Your task to perform on an android device: add a contact in the contacts app Image 0: 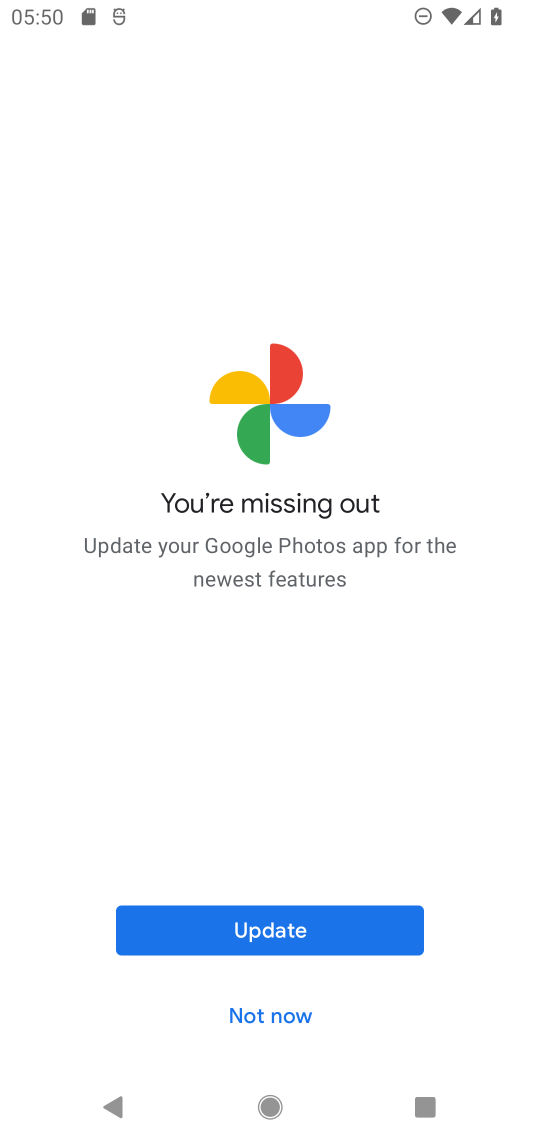
Step 0: press home button
Your task to perform on an android device: add a contact in the contacts app Image 1: 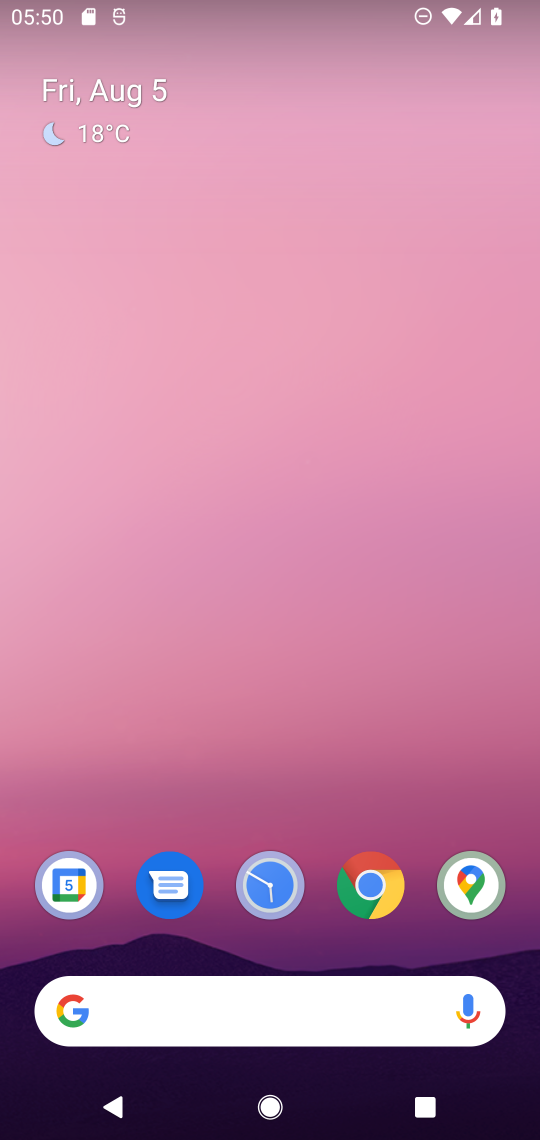
Step 1: drag from (324, 955) to (277, 93)
Your task to perform on an android device: add a contact in the contacts app Image 2: 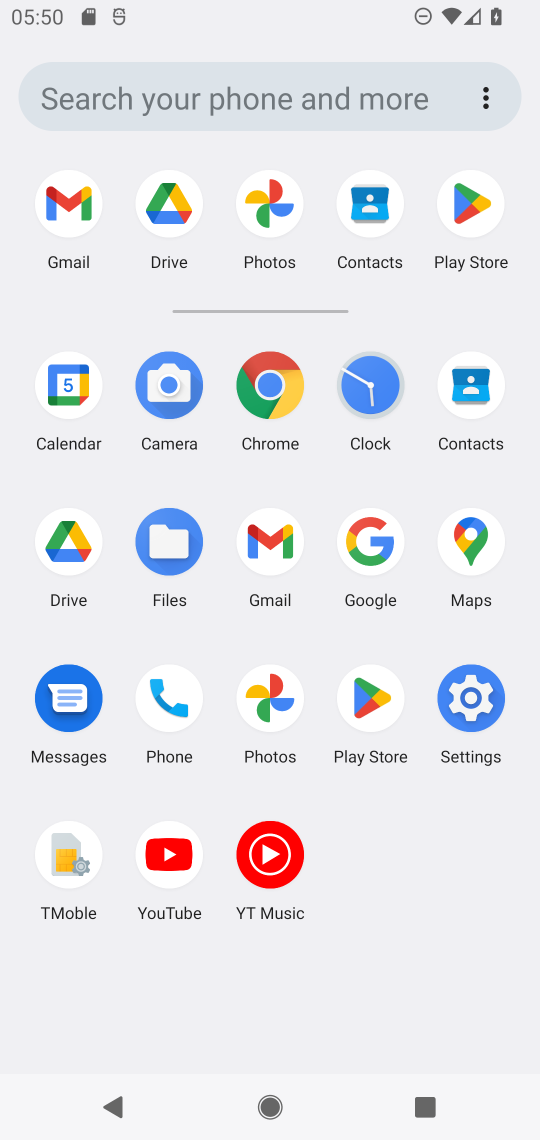
Step 2: click (467, 402)
Your task to perform on an android device: add a contact in the contacts app Image 3: 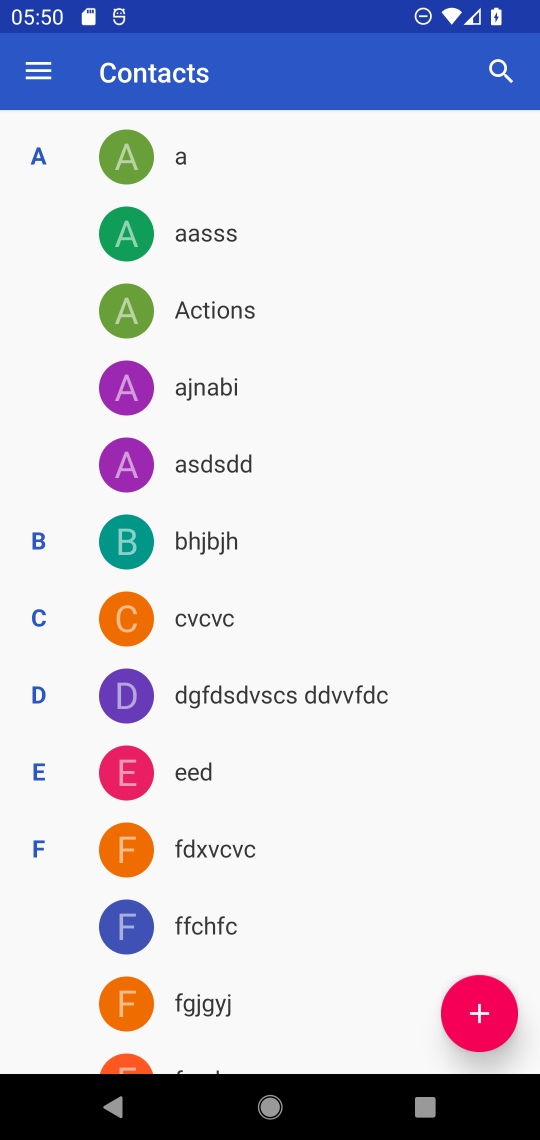
Step 3: press home button
Your task to perform on an android device: add a contact in the contacts app Image 4: 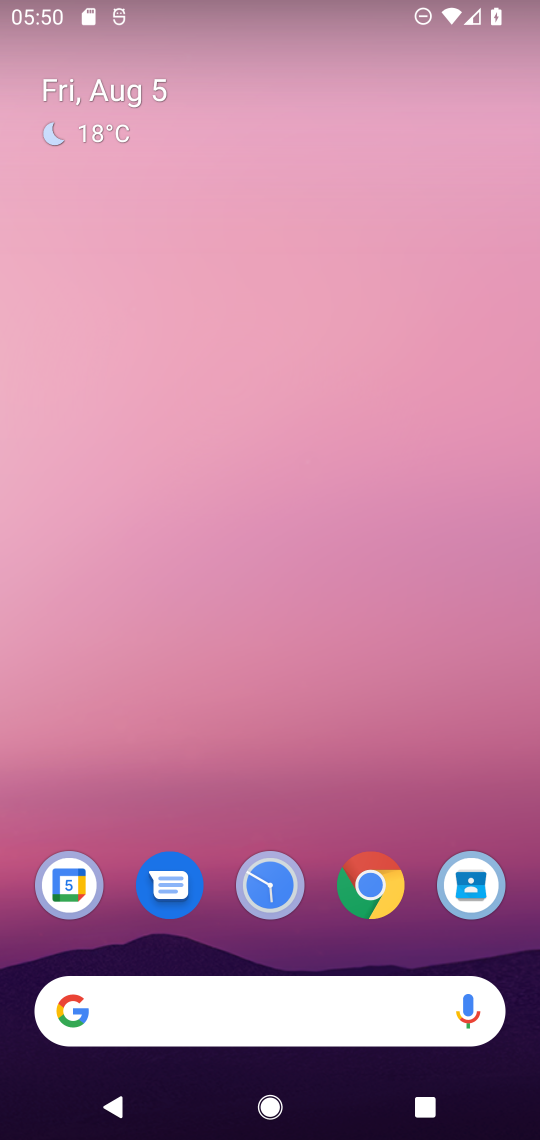
Step 4: drag from (321, 906) to (317, 245)
Your task to perform on an android device: add a contact in the contacts app Image 5: 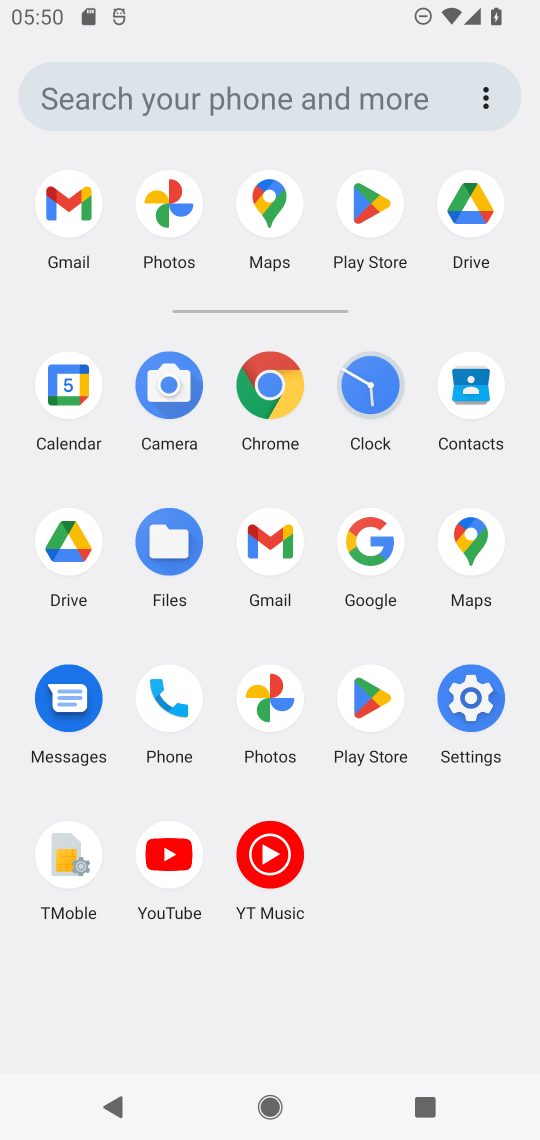
Step 5: click (454, 396)
Your task to perform on an android device: add a contact in the contacts app Image 6: 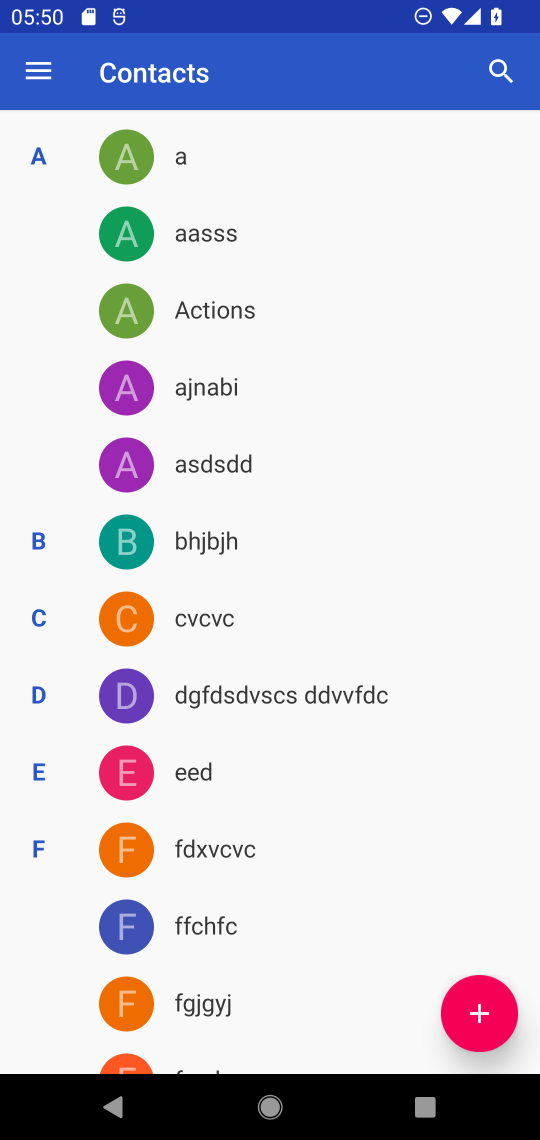
Step 6: click (480, 1021)
Your task to perform on an android device: add a contact in the contacts app Image 7: 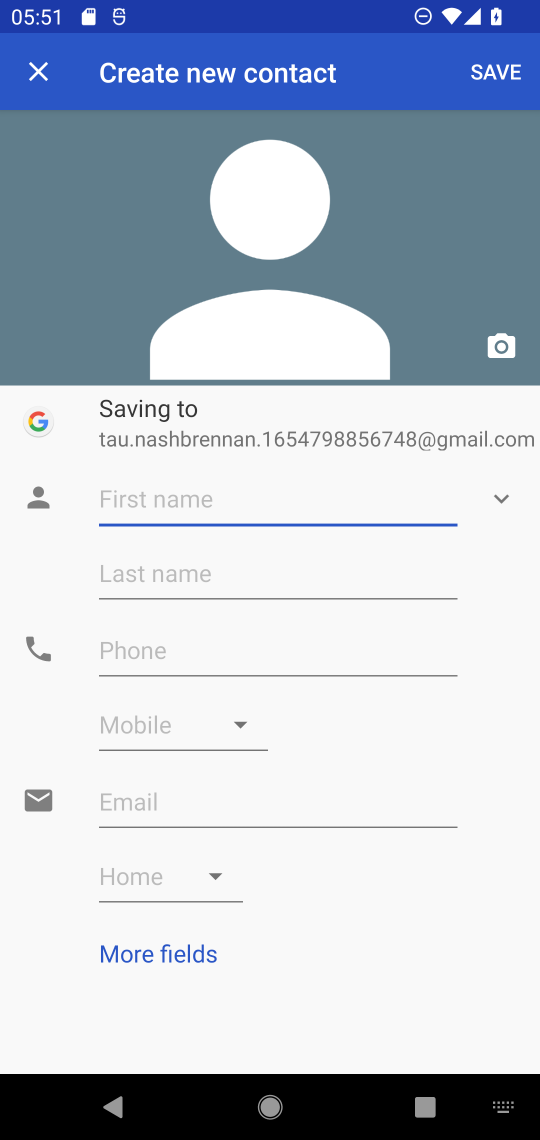
Step 7: type "police"
Your task to perform on an android device: add a contact in the contacts app Image 8: 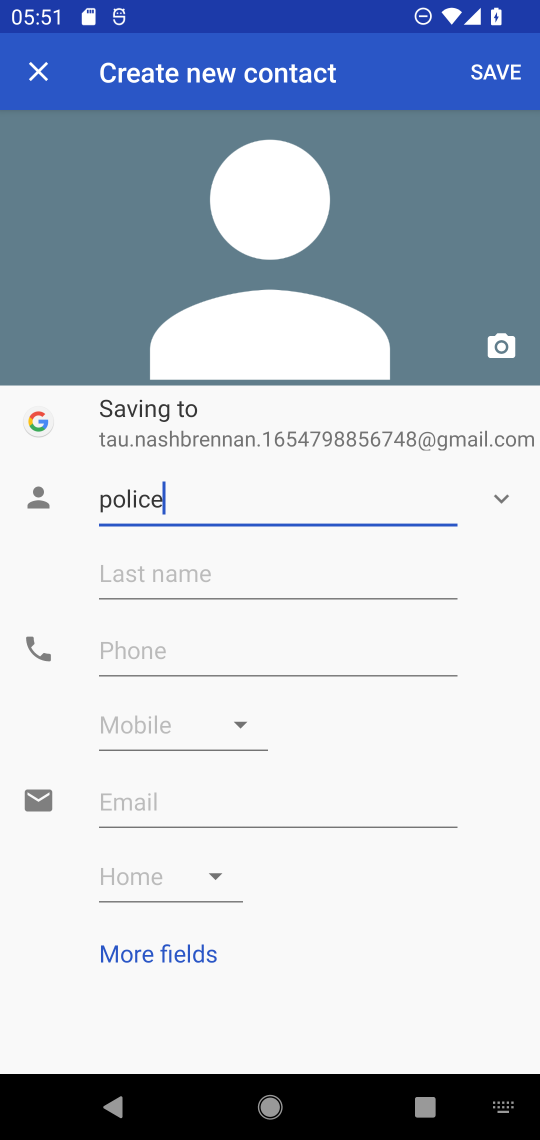
Step 8: click (145, 654)
Your task to perform on an android device: add a contact in the contacts app Image 9: 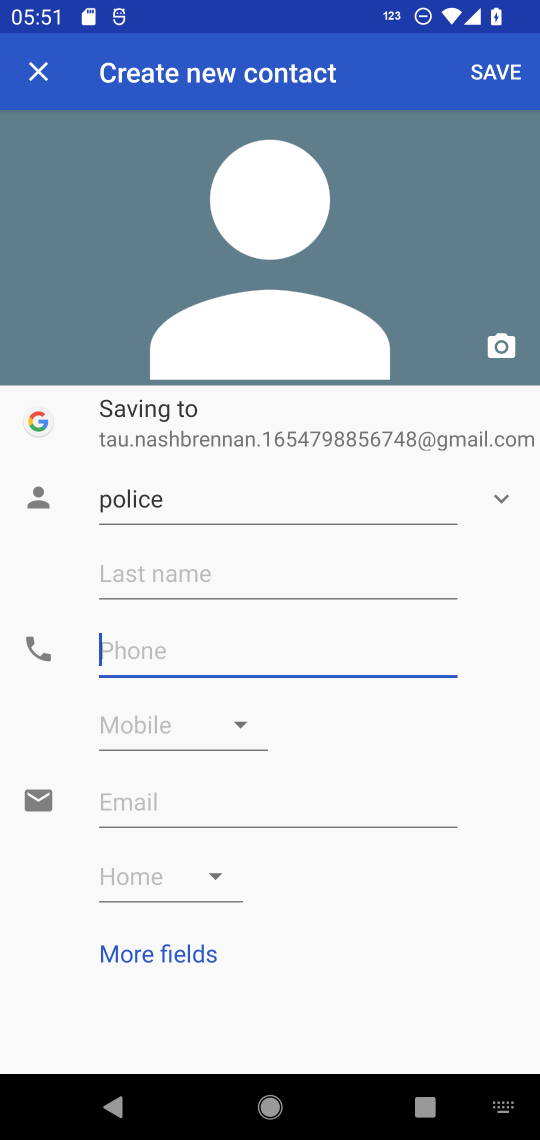
Step 9: type "89898"
Your task to perform on an android device: add a contact in the contacts app Image 10: 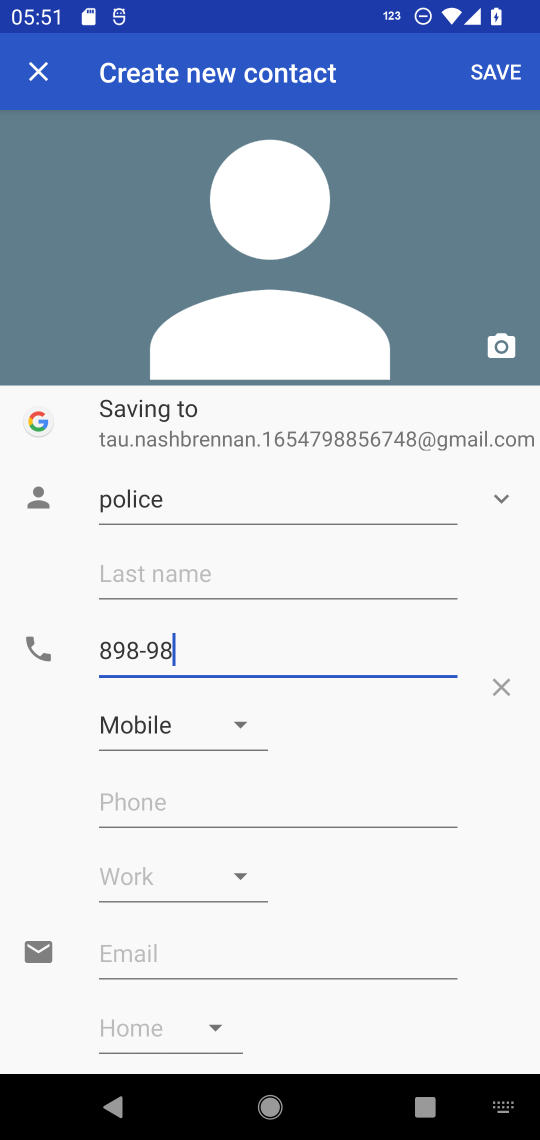
Step 10: type ""
Your task to perform on an android device: add a contact in the contacts app Image 11: 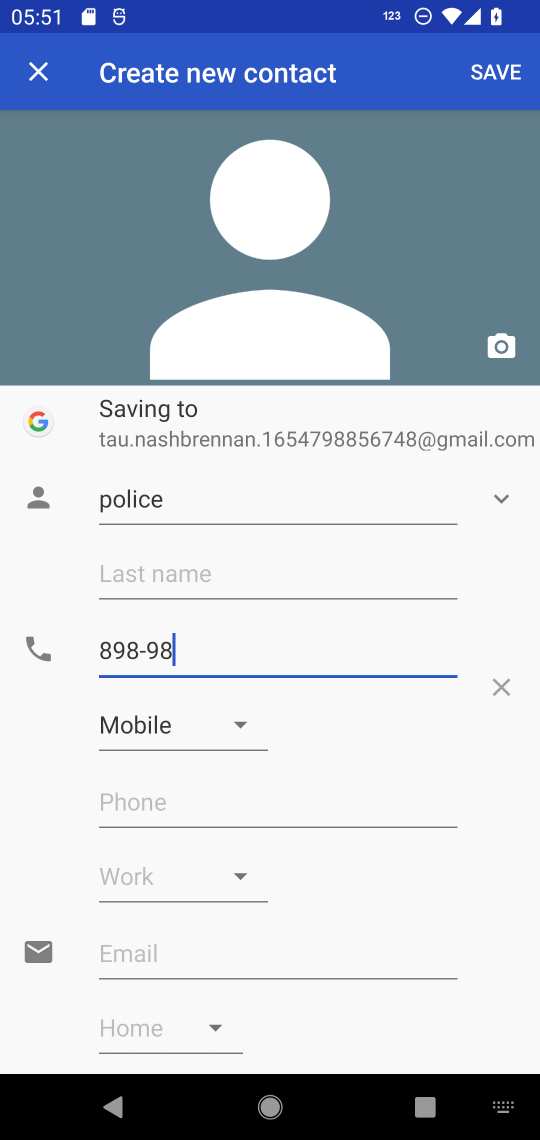
Step 11: click (489, 71)
Your task to perform on an android device: add a contact in the contacts app Image 12: 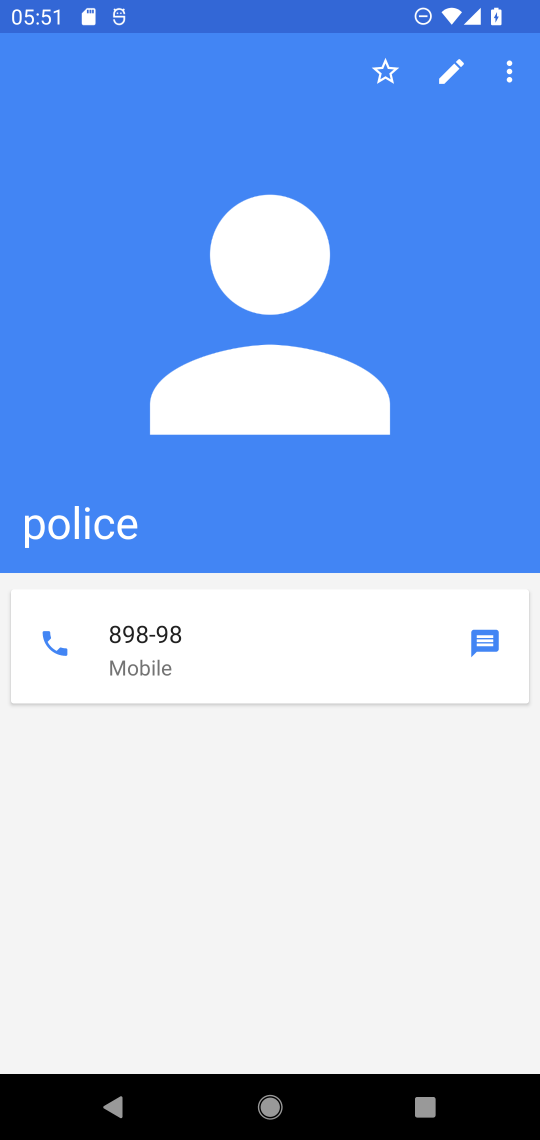
Step 12: task complete